Your task to perform on an android device: set default search engine in the chrome app Image 0: 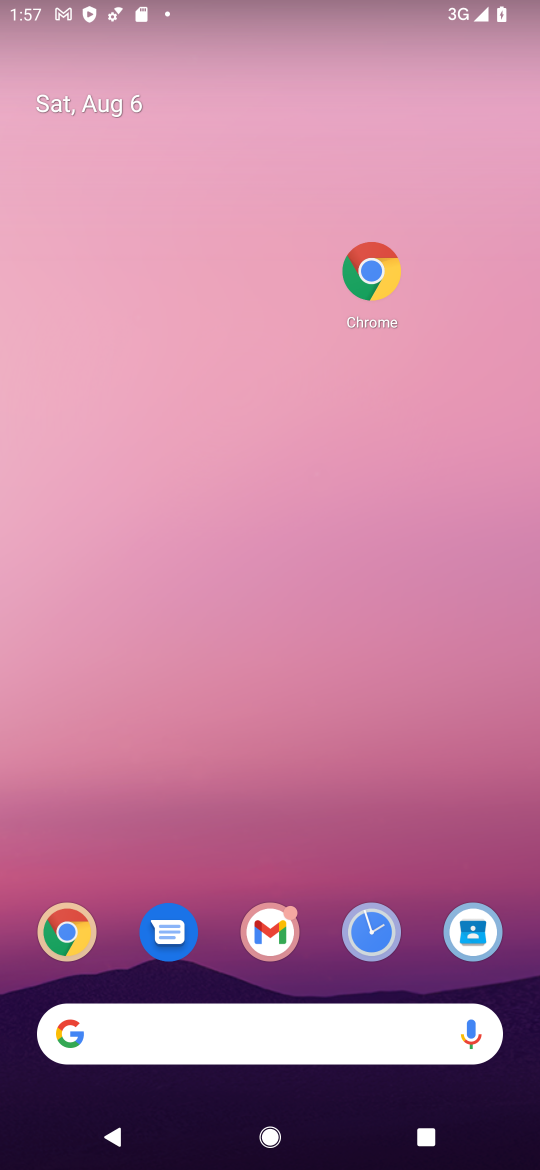
Step 0: drag from (306, 967) to (189, 1)
Your task to perform on an android device: set default search engine in the chrome app Image 1: 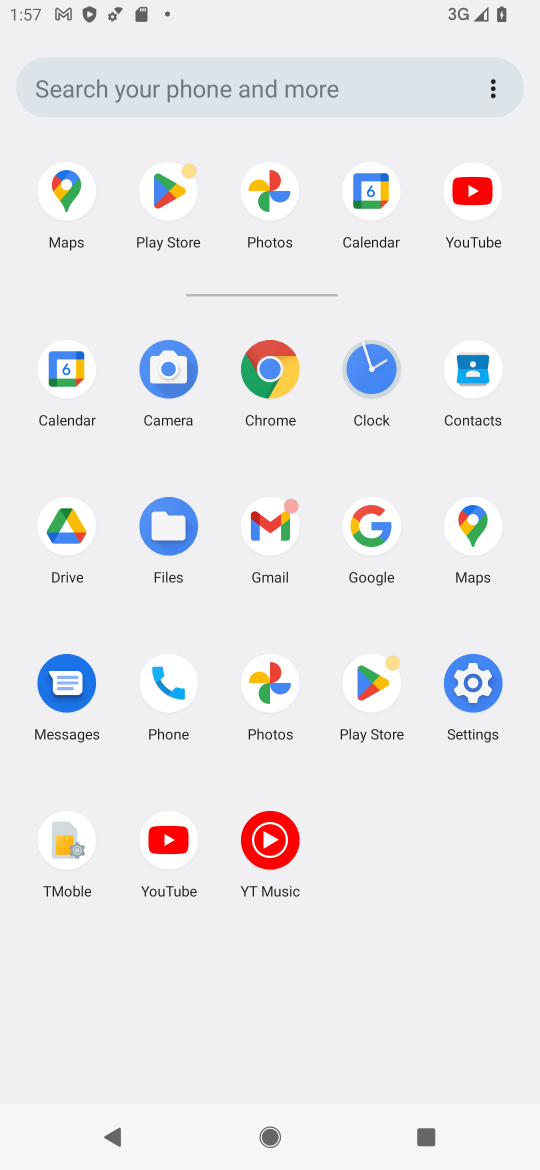
Step 1: click (257, 370)
Your task to perform on an android device: set default search engine in the chrome app Image 2: 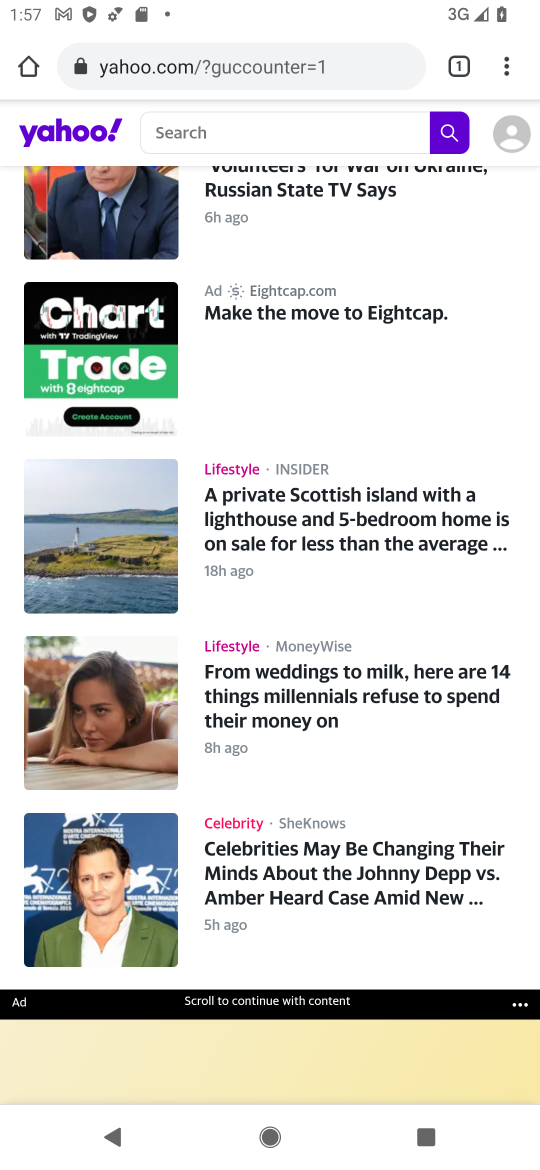
Step 2: drag from (501, 61) to (346, 868)
Your task to perform on an android device: set default search engine in the chrome app Image 3: 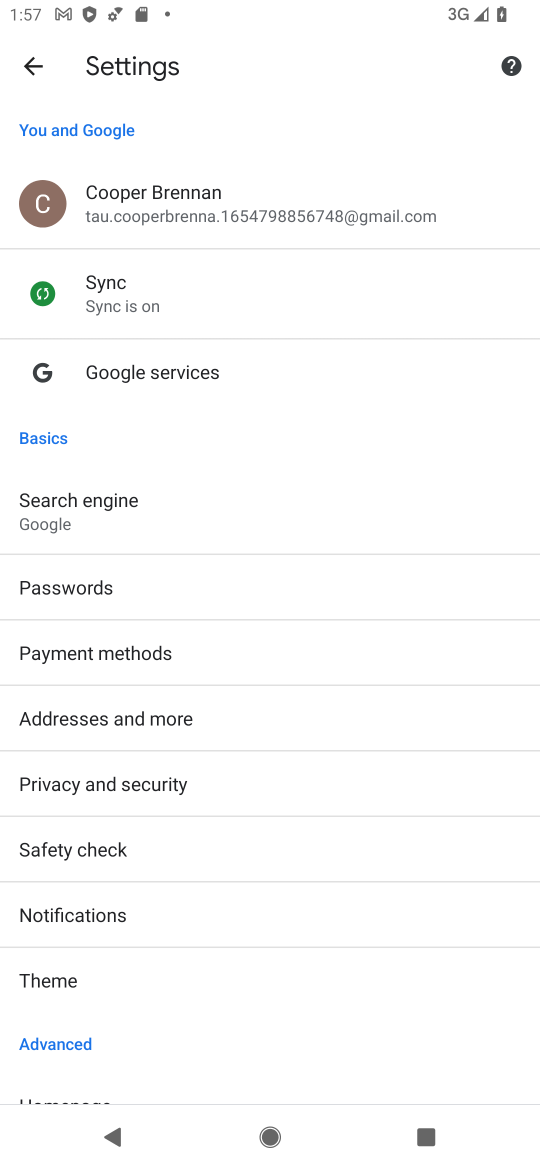
Step 3: click (66, 485)
Your task to perform on an android device: set default search engine in the chrome app Image 4: 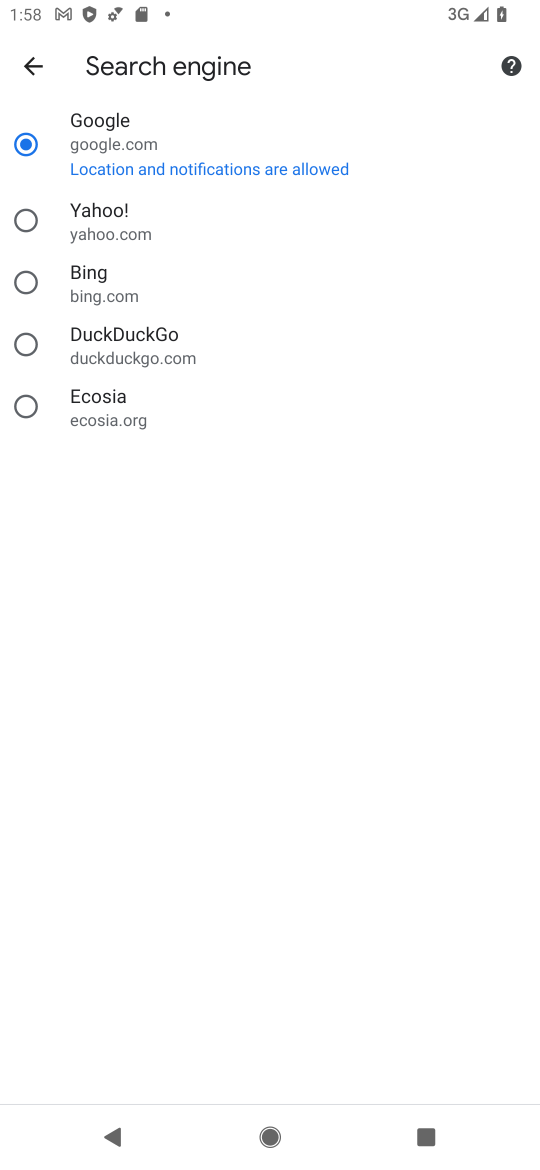
Step 4: task complete